Your task to perform on an android device: turn on the 24-hour format for clock Image 0: 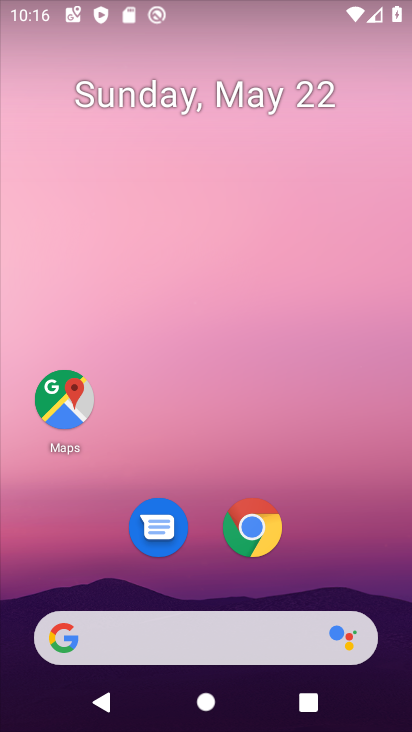
Step 0: drag from (358, 577) to (357, 146)
Your task to perform on an android device: turn on the 24-hour format for clock Image 1: 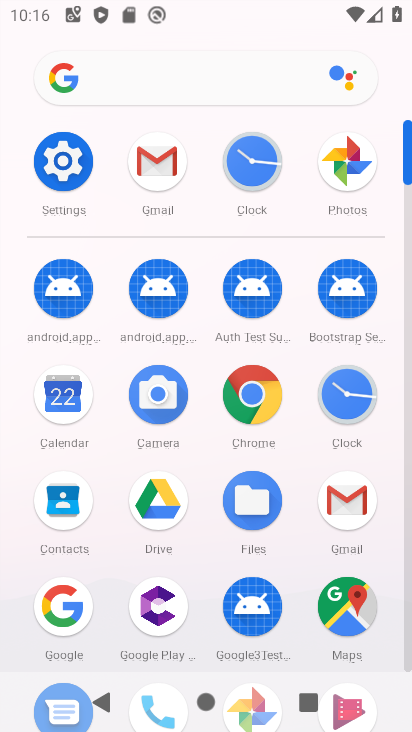
Step 1: click (79, 178)
Your task to perform on an android device: turn on the 24-hour format for clock Image 2: 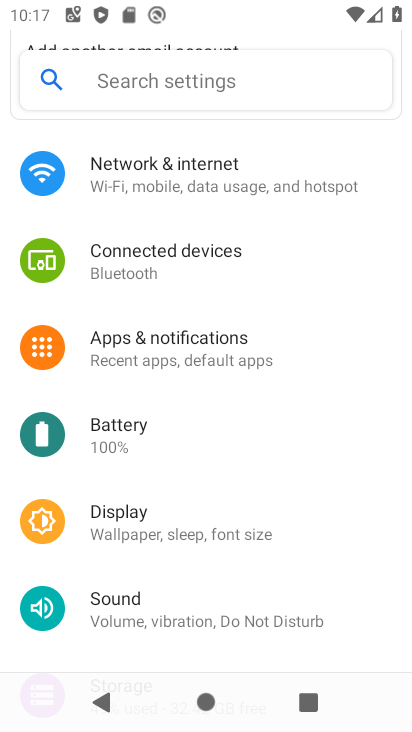
Step 2: drag from (284, 557) to (292, 417)
Your task to perform on an android device: turn on the 24-hour format for clock Image 3: 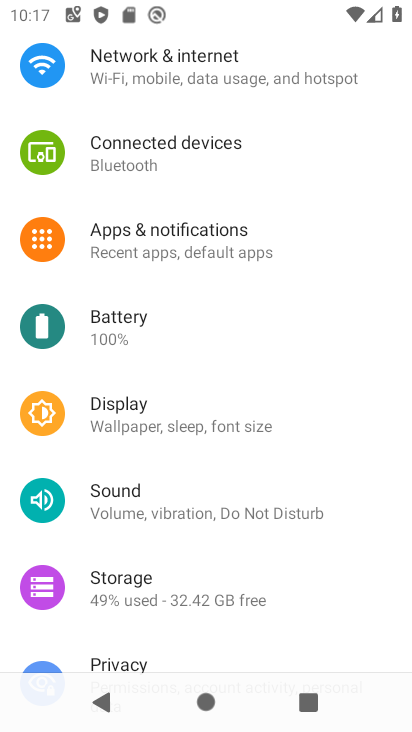
Step 3: press home button
Your task to perform on an android device: turn on the 24-hour format for clock Image 4: 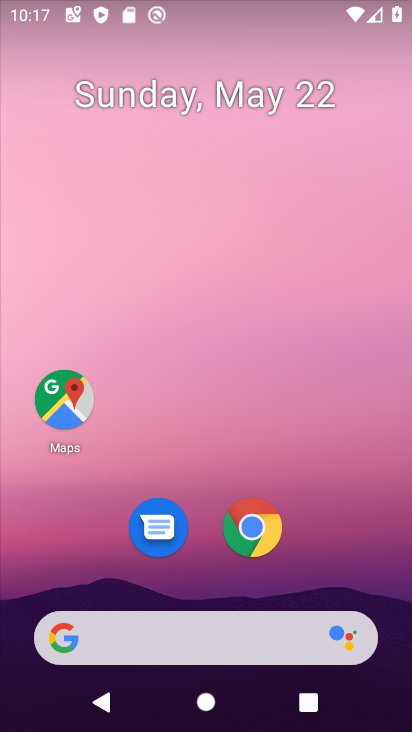
Step 4: drag from (371, 581) to (357, 81)
Your task to perform on an android device: turn on the 24-hour format for clock Image 5: 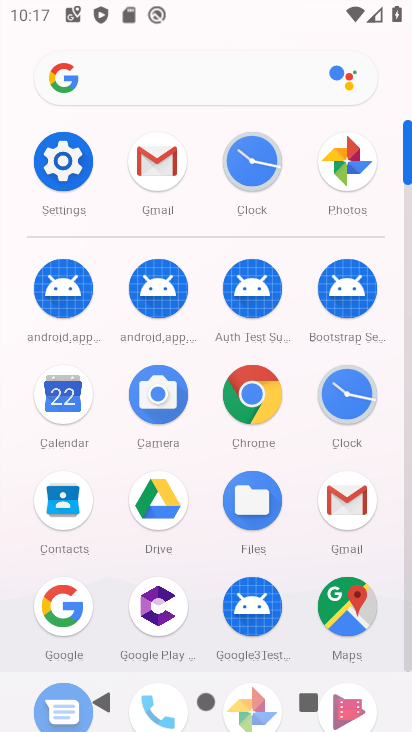
Step 5: click (270, 179)
Your task to perform on an android device: turn on the 24-hour format for clock Image 6: 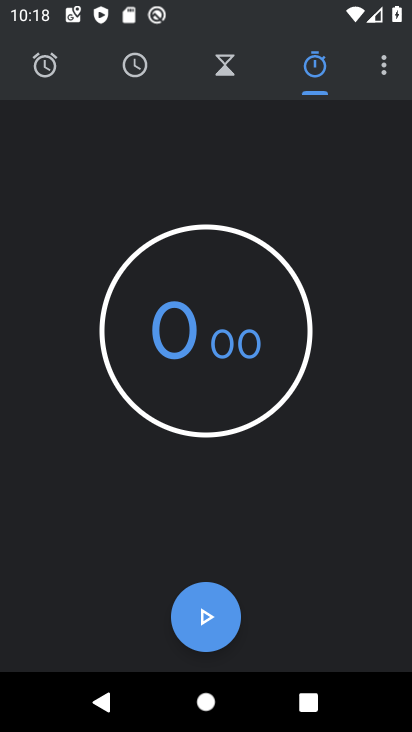
Step 6: click (387, 74)
Your task to perform on an android device: turn on the 24-hour format for clock Image 7: 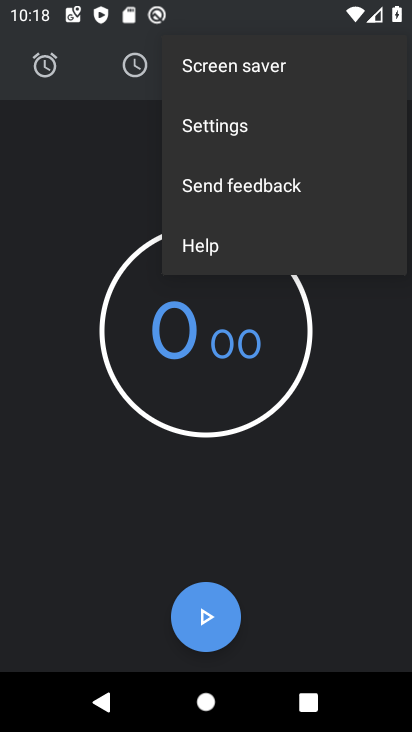
Step 7: click (245, 100)
Your task to perform on an android device: turn on the 24-hour format for clock Image 8: 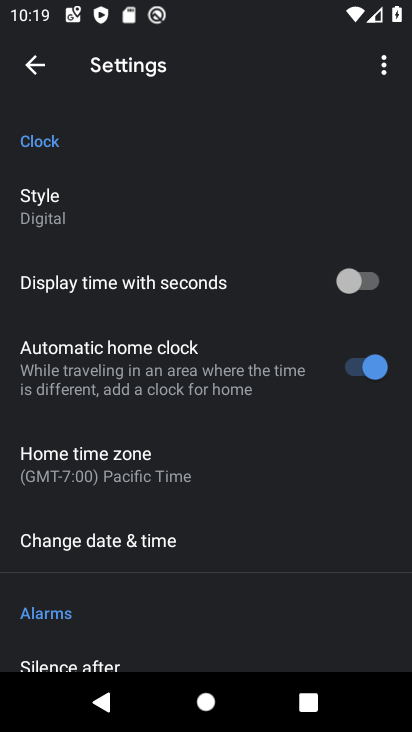
Step 8: task complete